Your task to perform on an android device: move a message to another label in the gmail app Image 0: 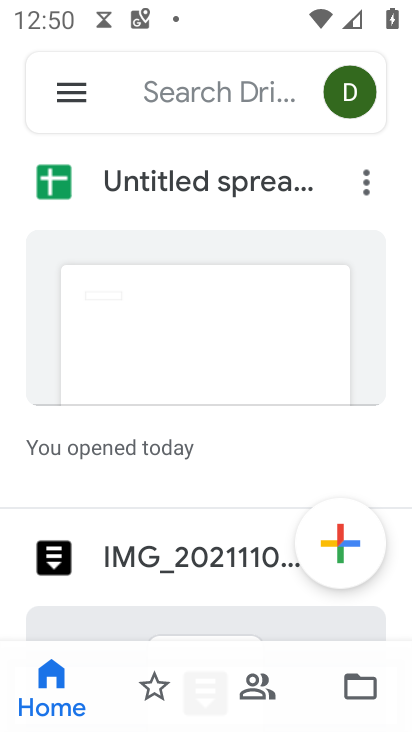
Step 0: press home button
Your task to perform on an android device: move a message to another label in the gmail app Image 1: 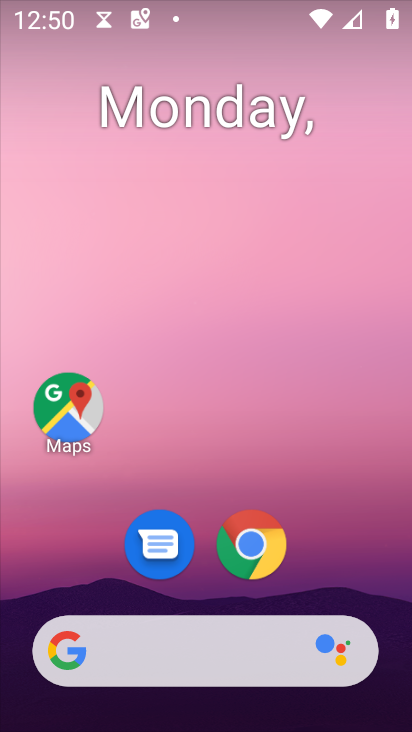
Step 1: drag from (365, 551) to (381, 186)
Your task to perform on an android device: move a message to another label in the gmail app Image 2: 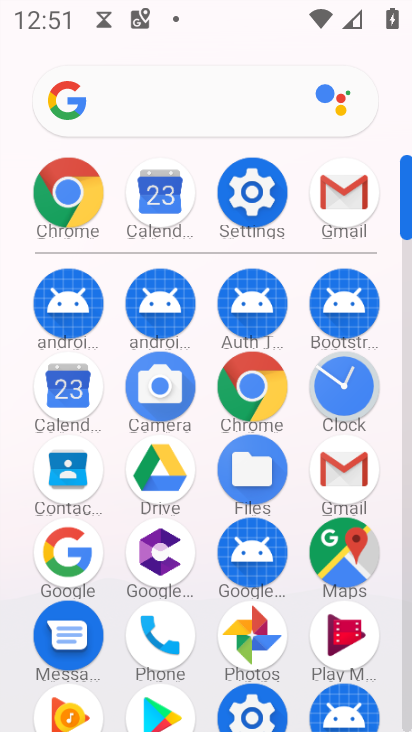
Step 2: click (342, 460)
Your task to perform on an android device: move a message to another label in the gmail app Image 3: 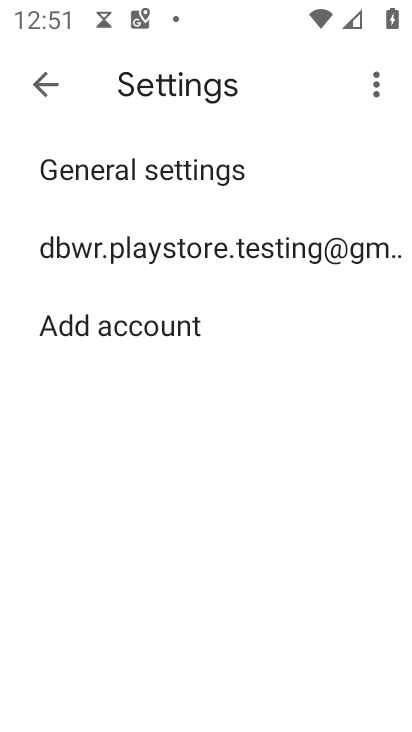
Step 3: click (196, 251)
Your task to perform on an android device: move a message to another label in the gmail app Image 4: 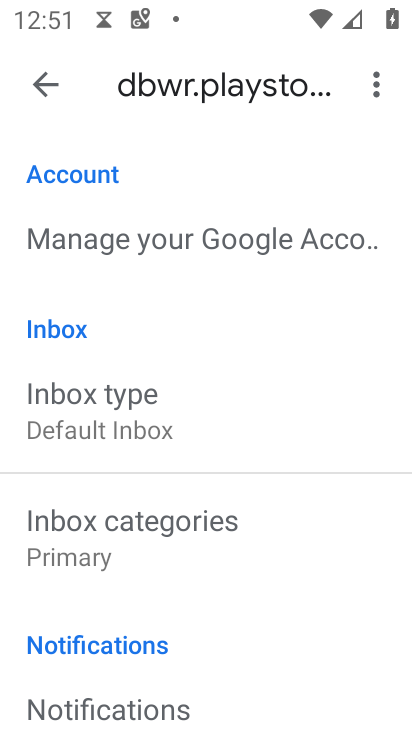
Step 4: click (40, 82)
Your task to perform on an android device: move a message to another label in the gmail app Image 5: 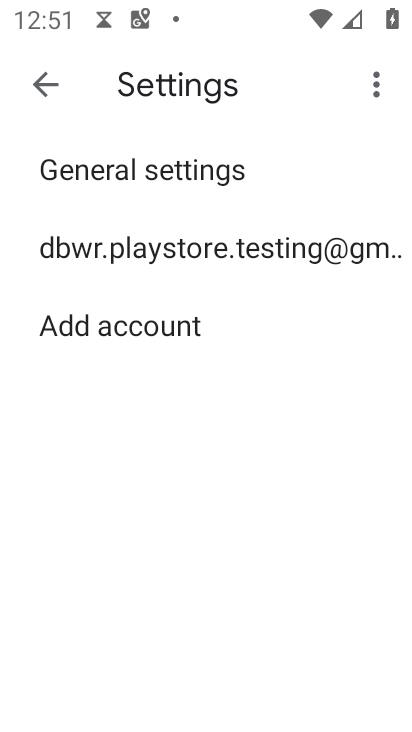
Step 5: click (46, 71)
Your task to perform on an android device: move a message to another label in the gmail app Image 6: 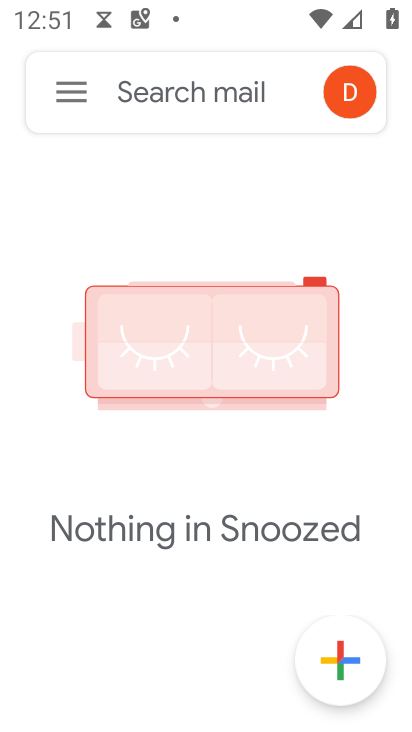
Step 6: click (47, 93)
Your task to perform on an android device: move a message to another label in the gmail app Image 7: 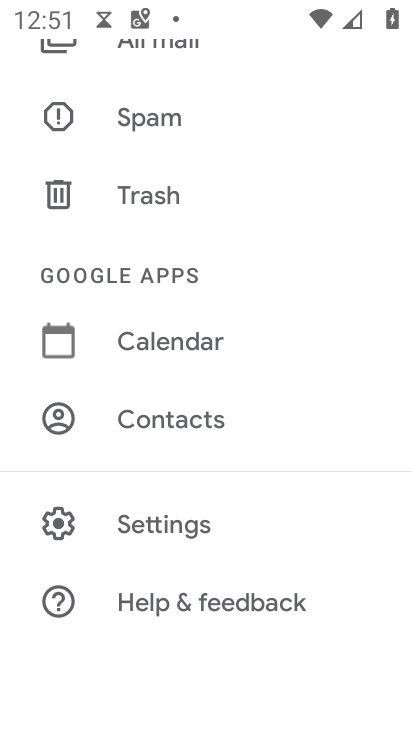
Step 7: drag from (191, 157) to (218, 299)
Your task to perform on an android device: move a message to another label in the gmail app Image 8: 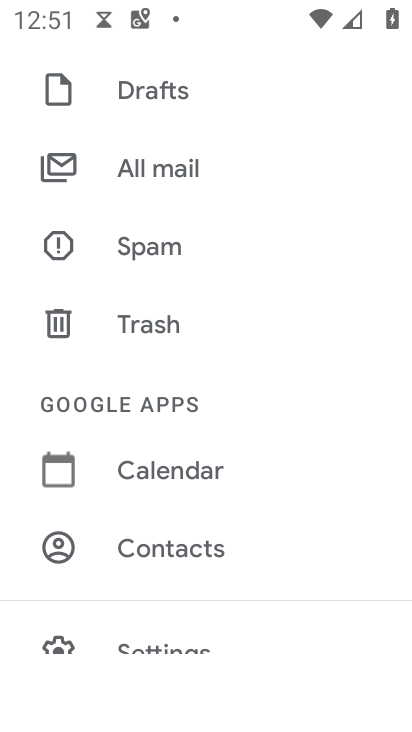
Step 8: click (175, 192)
Your task to perform on an android device: move a message to another label in the gmail app Image 9: 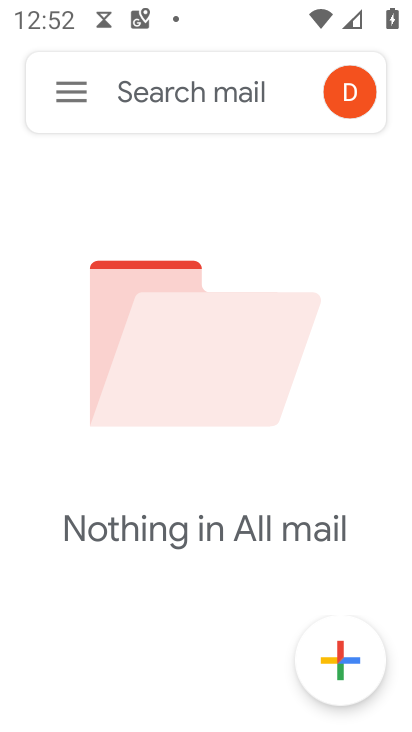
Step 9: task complete